Your task to perform on an android device: turn on notifications settings in the gmail app Image 0: 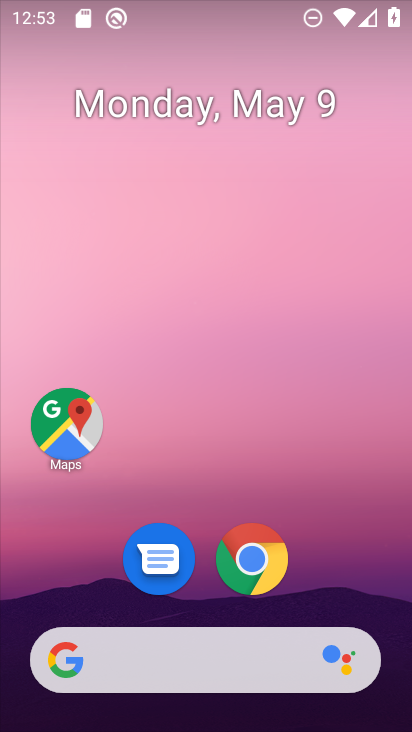
Step 0: drag from (219, 398) to (154, 111)
Your task to perform on an android device: turn on notifications settings in the gmail app Image 1: 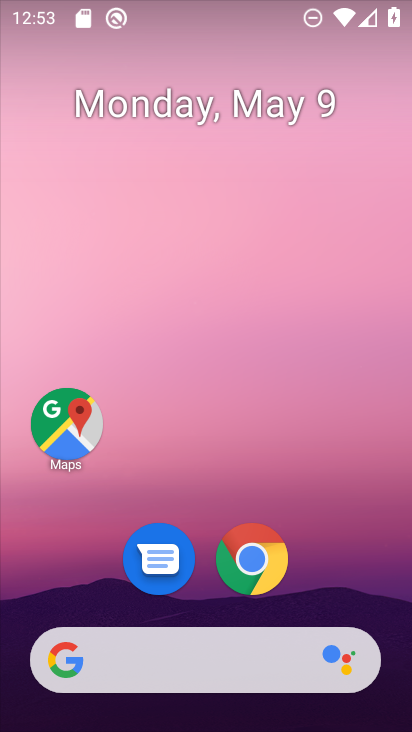
Step 1: drag from (301, 480) to (271, 99)
Your task to perform on an android device: turn on notifications settings in the gmail app Image 2: 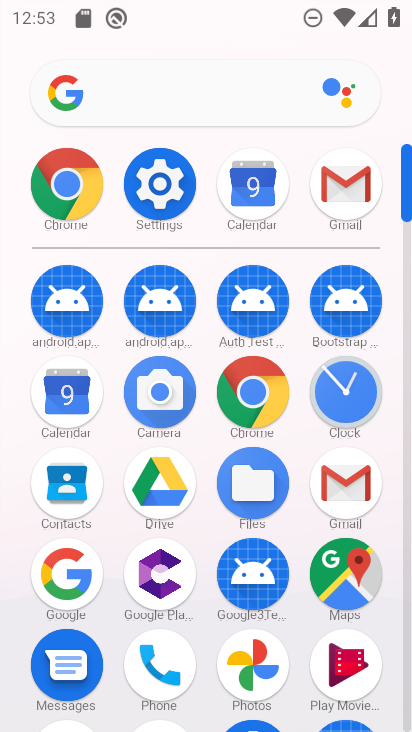
Step 2: click (318, 481)
Your task to perform on an android device: turn on notifications settings in the gmail app Image 3: 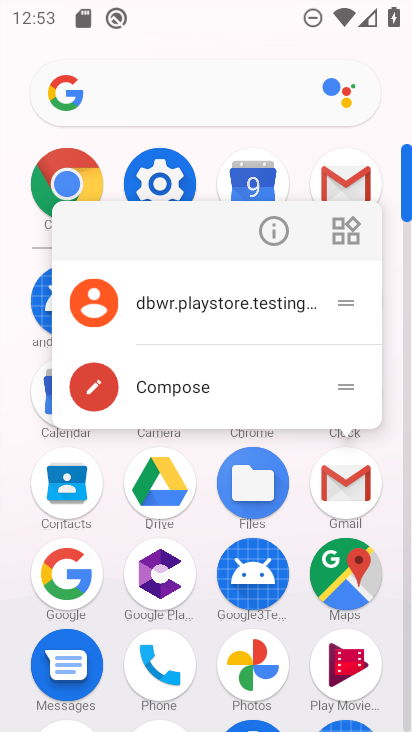
Step 3: click (282, 233)
Your task to perform on an android device: turn on notifications settings in the gmail app Image 4: 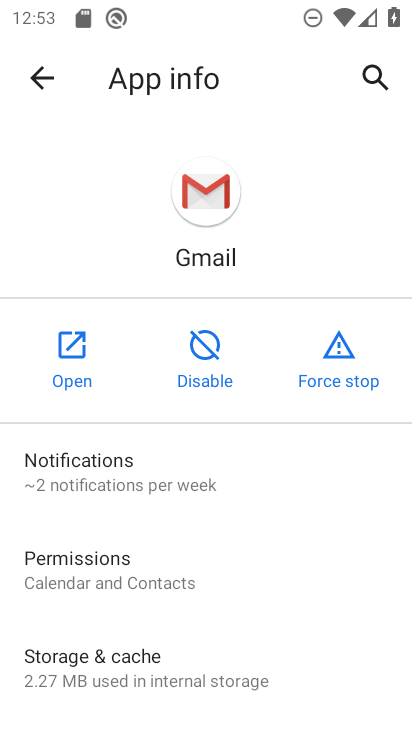
Step 4: click (121, 492)
Your task to perform on an android device: turn on notifications settings in the gmail app Image 5: 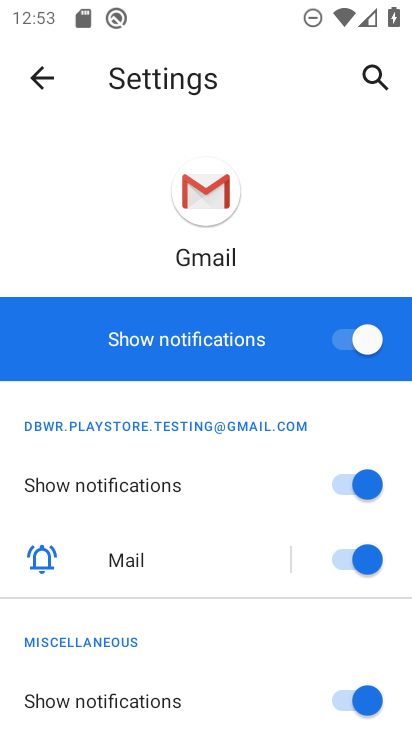
Step 5: click (355, 343)
Your task to perform on an android device: turn on notifications settings in the gmail app Image 6: 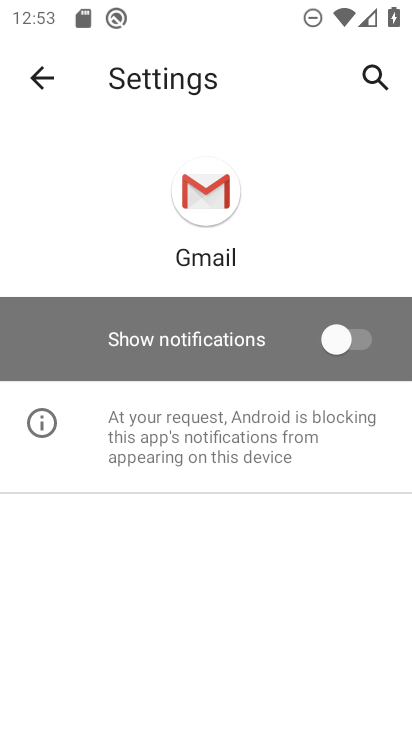
Step 6: click (317, 357)
Your task to perform on an android device: turn on notifications settings in the gmail app Image 7: 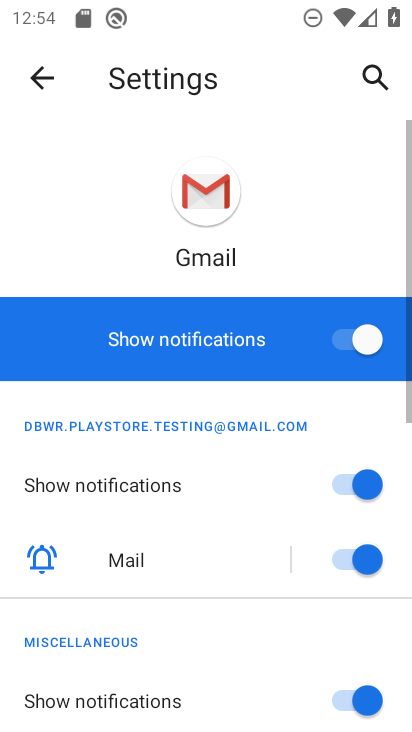
Step 7: task complete